Your task to perform on an android device: Open the phone app and click the voicemail tab. Image 0: 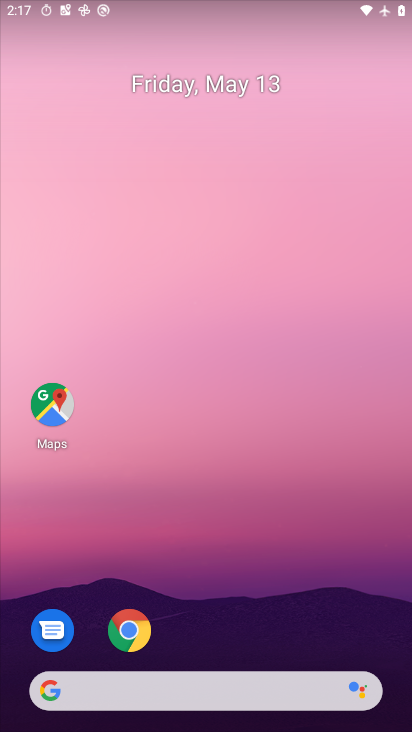
Step 0: drag from (212, 645) to (191, 267)
Your task to perform on an android device: Open the phone app and click the voicemail tab. Image 1: 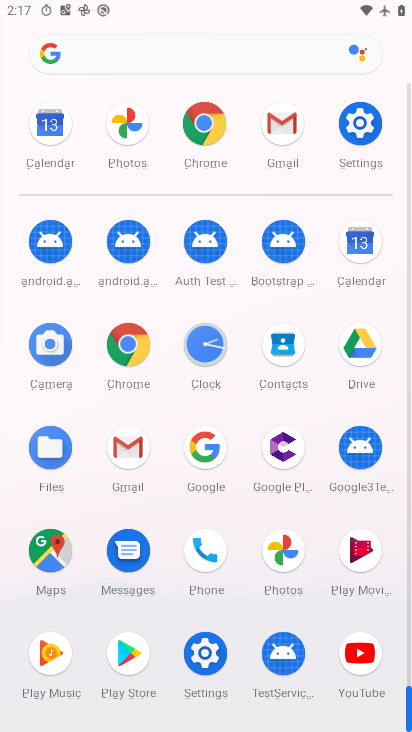
Step 1: click (219, 566)
Your task to perform on an android device: Open the phone app and click the voicemail tab. Image 2: 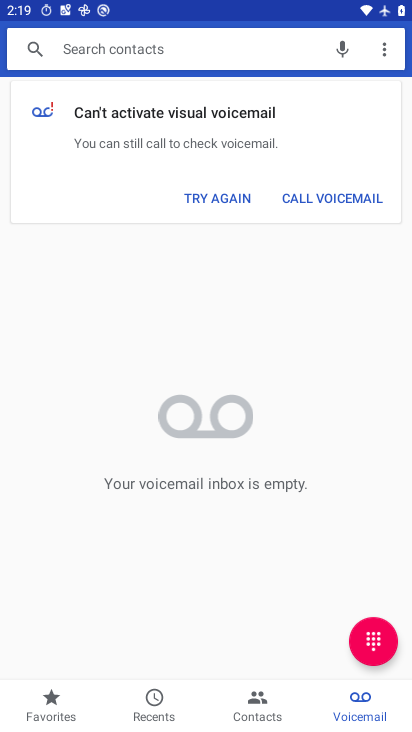
Step 2: task complete